Your task to perform on an android device: Go to ESPN.com Image 0: 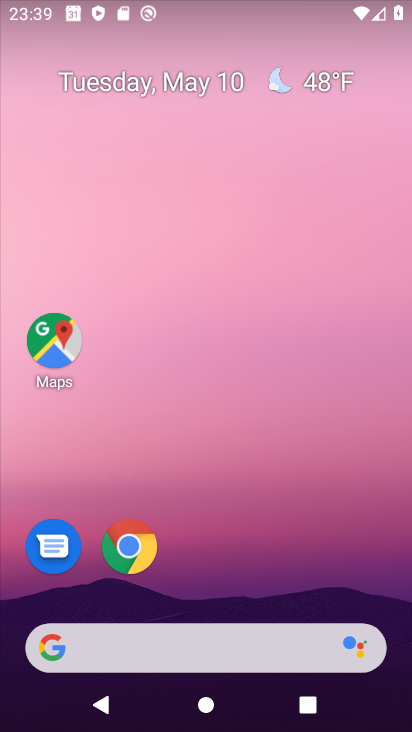
Step 0: click (129, 558)
Your task to perform on an android device: Go to ESPN.com Image 1: 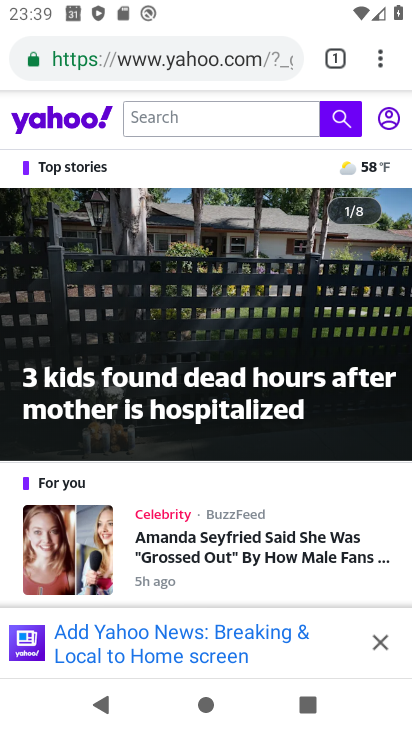
Step 1: click (331, 59)
Your task to perform on an android device: Go to ESPN.com Image 2: 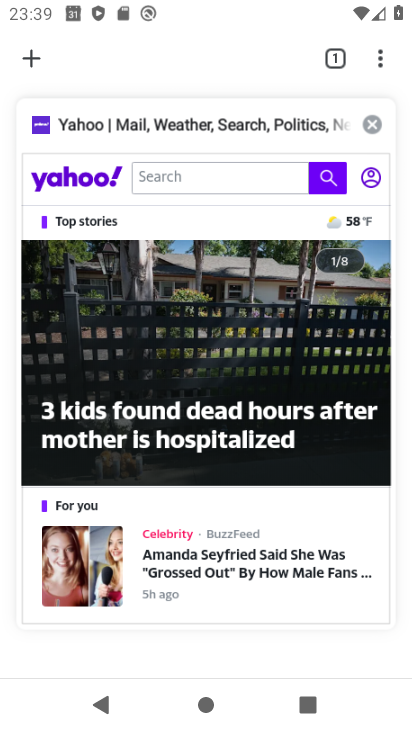
Step 2: click (30, 59)
Your task to perform on an android device: Go to ESPN.com Image 3: 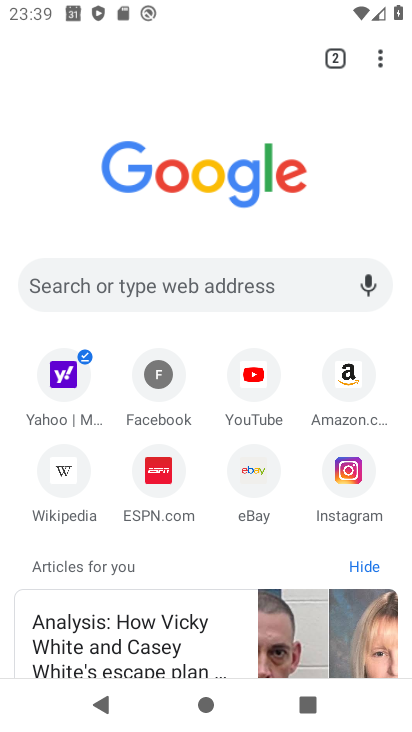
Step 3: click (166, 460)
Your task to perform on an android device: Go to ESPN.com Image 4: 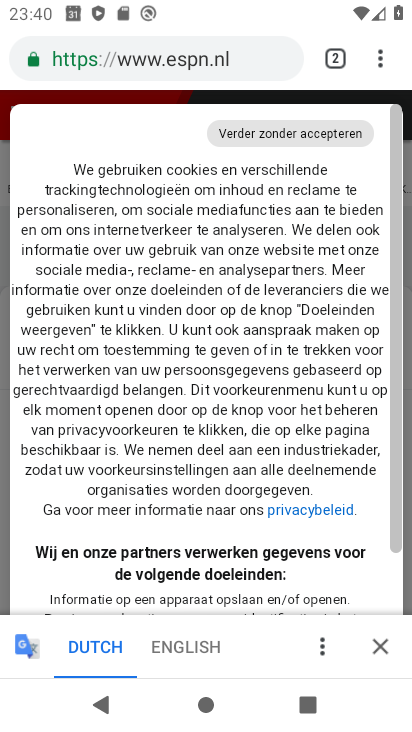
Step 4: task complete